Your task to perform on an android device: Open display settings Image 0: 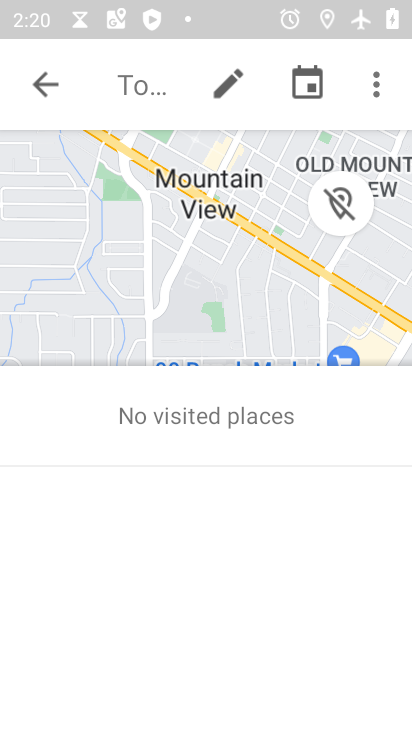
Step 0: press home button
Your task to perform on an android device: Open display settings Image 1: 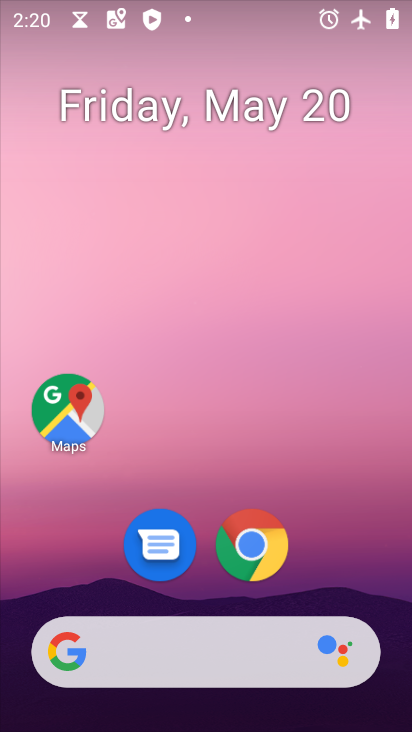
Step 1: drag from (345, 569) to (265, 129)
Your task to perform on an android device: Open display settings Image 2: 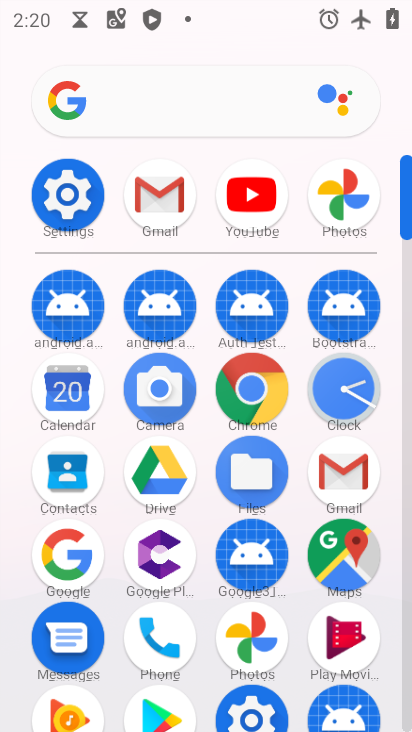
Step 2: click (80, 208)
Your task to perform on an android device: Open display settings Image 3: 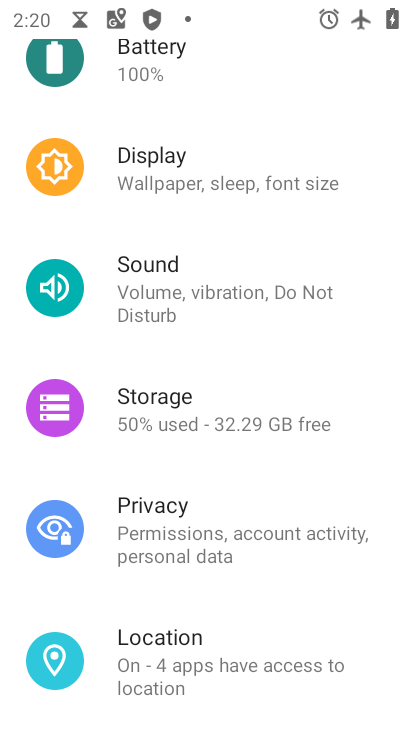
Step 3: click (259, 182)
Your task to perform on an android device: Open display settings Image 4: 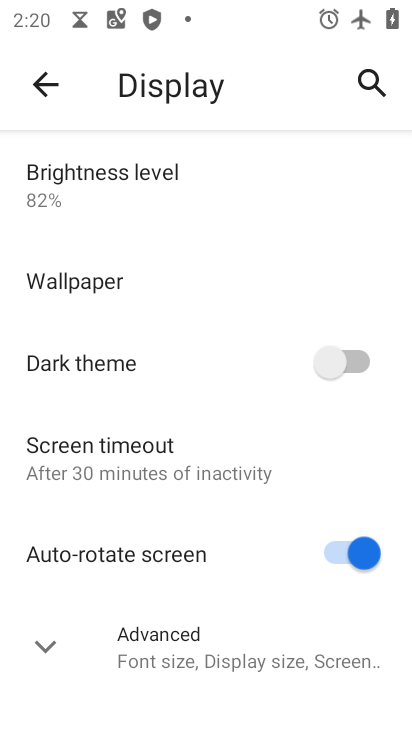
Step 4: click (247, 646)
Your task to perform on an android device: Open display settings Image 5: 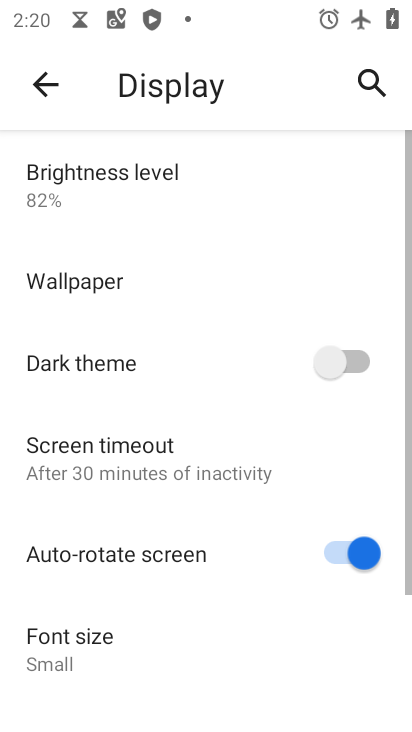
Step 5: task complete